Your task to perform on an android device: Open Maps and search for coffee Image 0: 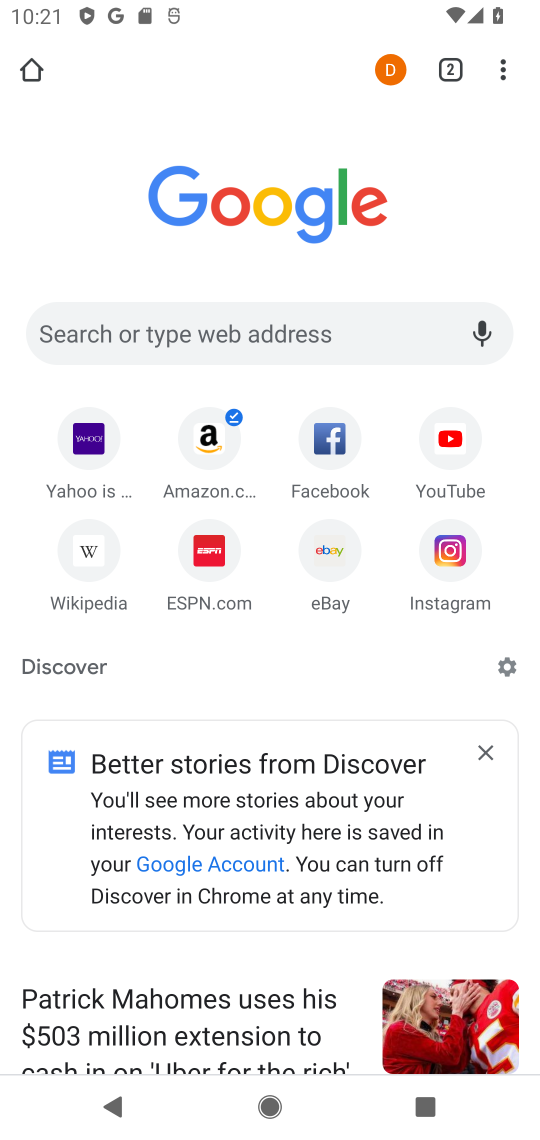
Step 0: press home button
Your task to perform on an android device: Open Maps and search for coffee Image 1: 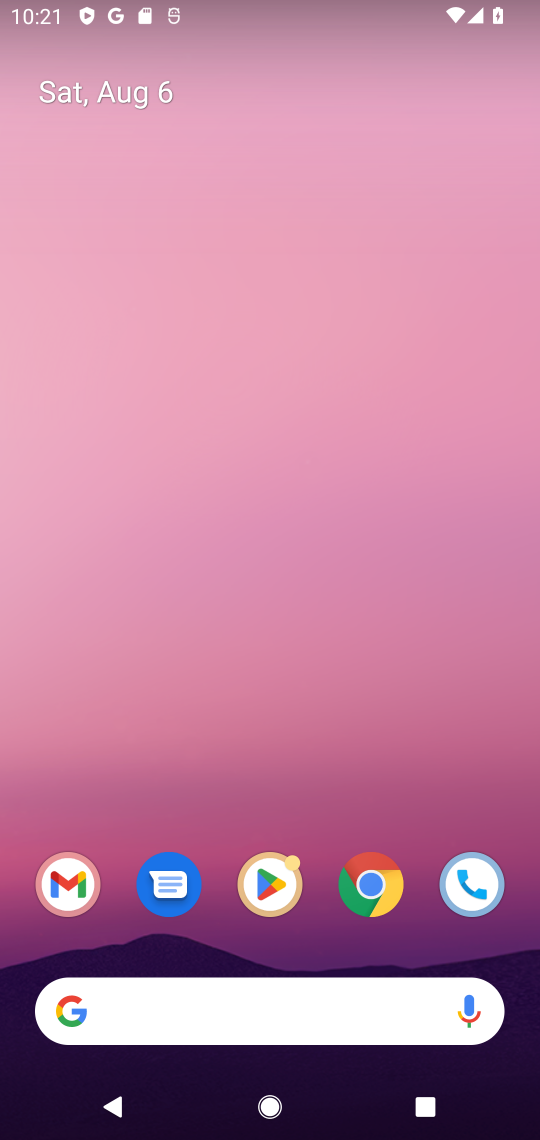
Step 1: drag from (405, 840) to (385, 215)
Your task to perform on an android device: Open Maps and search for coffee Image 2: 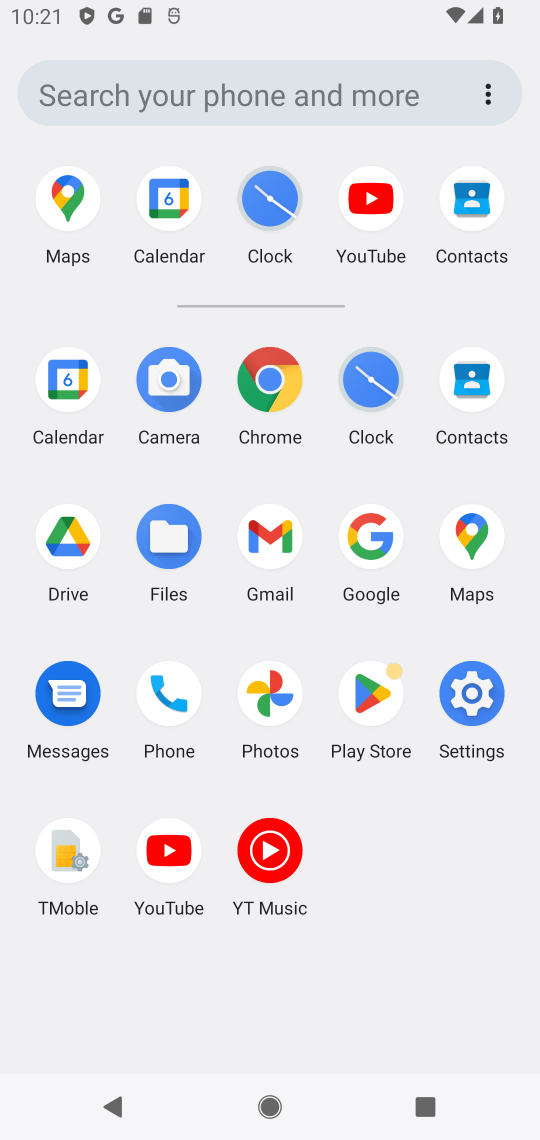
Step 2: click (475, 542)
Your task to perform on an android device: Open Maps and search for coffee Image 3: 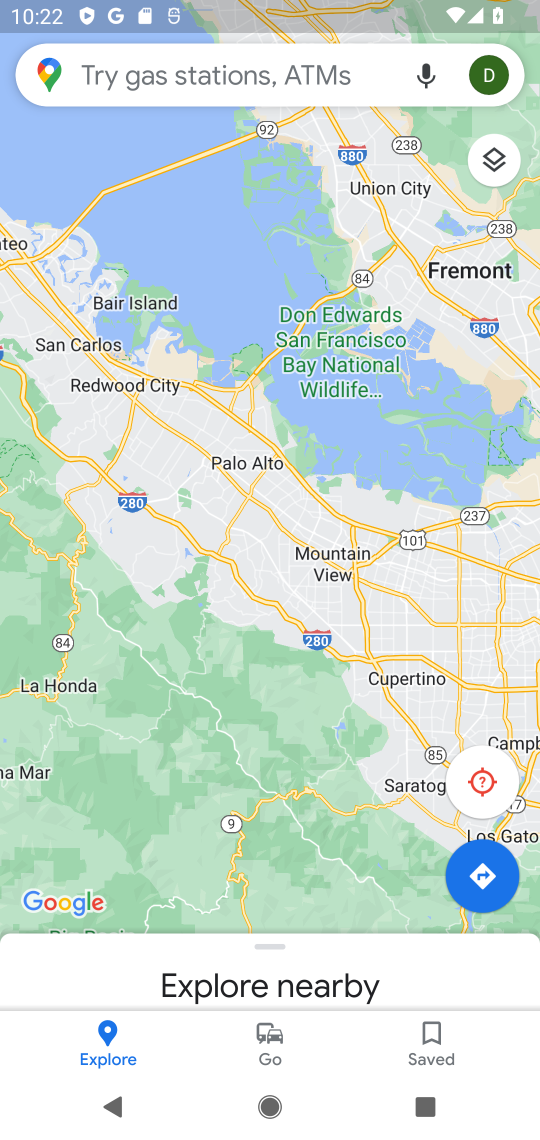
Step 3: click (213, 77)
Your task to perform on an android device: Open Maps and search for coffee Image 4: 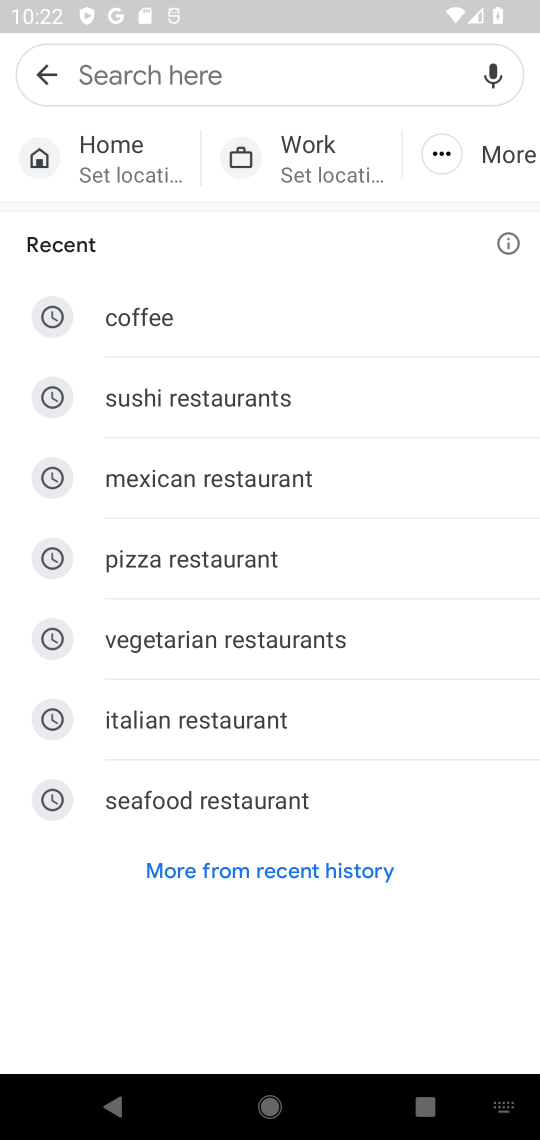
Step 4: type "coffee"
Your task to perform on an android device: Open Maps and search for coffee Image 5: 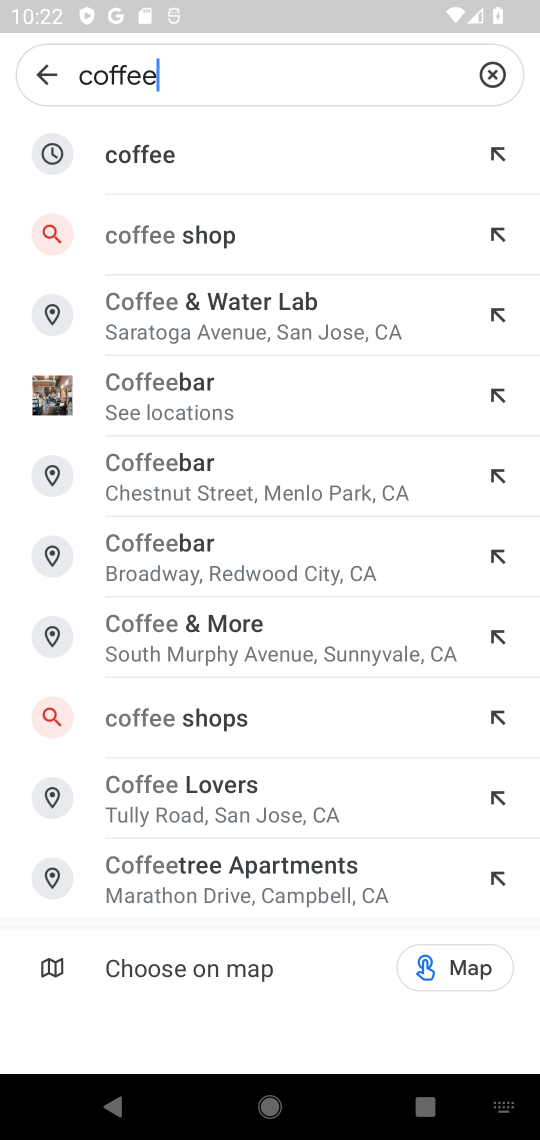
Step 5: click (145, 128)
Your task to perform on an android device: Open Maps and search for coffee Image 6: 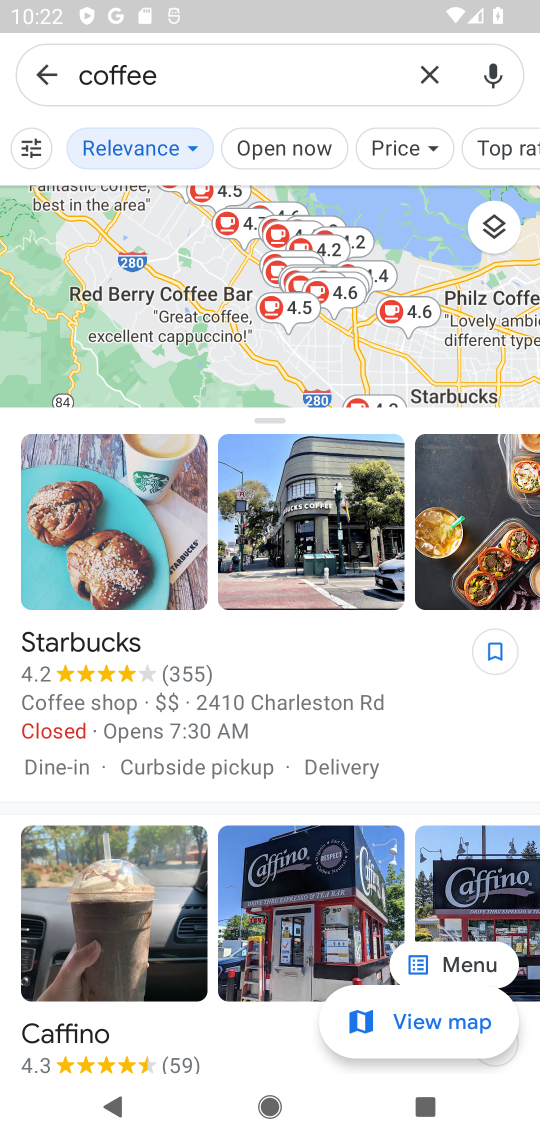
Step 6: task complete